Your task to perform on an android device: What's the weather? Image 0: 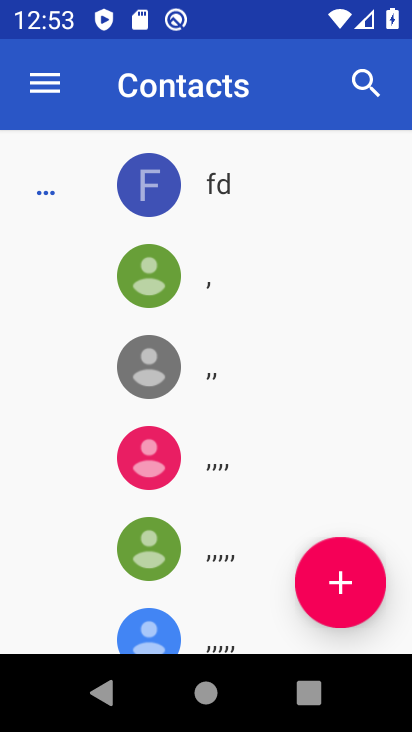
Step 0: press home button
Your task to perform on an android device: What's the weather? Image 1: 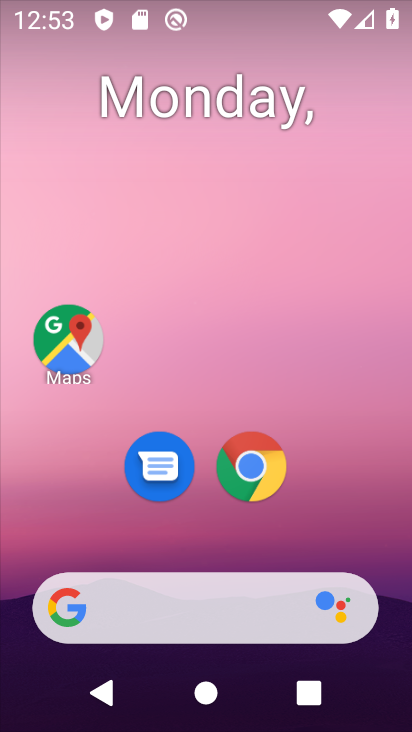
Step 1: click (223, 611)
Your task to perform on an android device: What's the weather? Image 2: 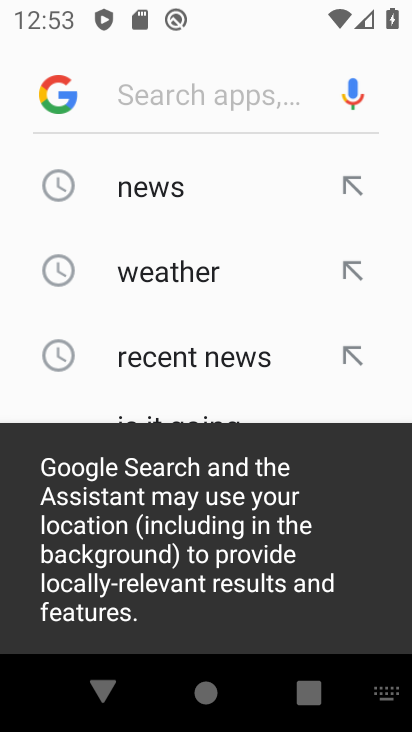
Step 2: click (185, 284)
Your task to perform on an android device: What's the weather? Image 3: 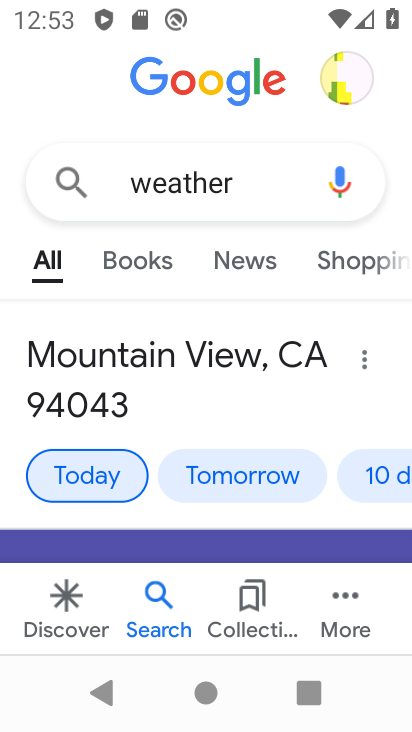
Step 3: task complete